Your task to perform on an android device: open sync settings in chrome Image 0: 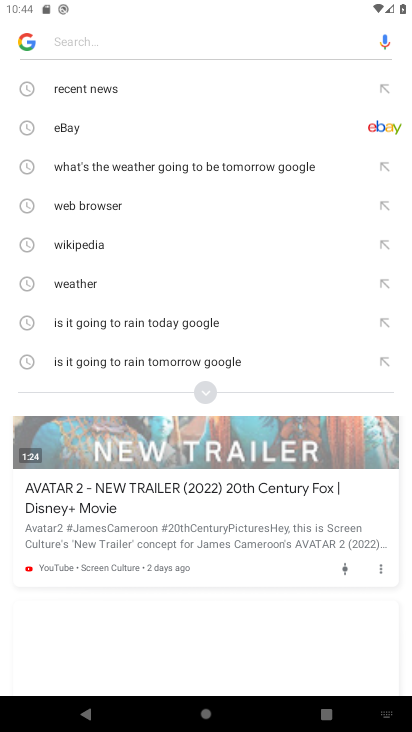
Step 0: press back button
Your task to perform on an android device: open sync settings in chrome Image 1: 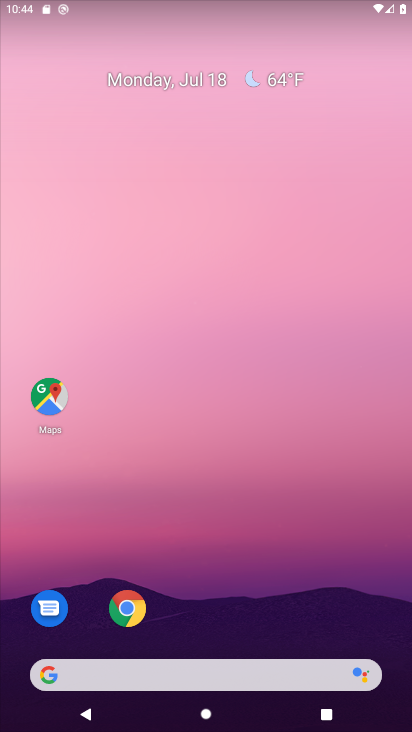
Step 1: click (129, 604)
Your task to perform on an android device: open sync settings in chrome Image 2: 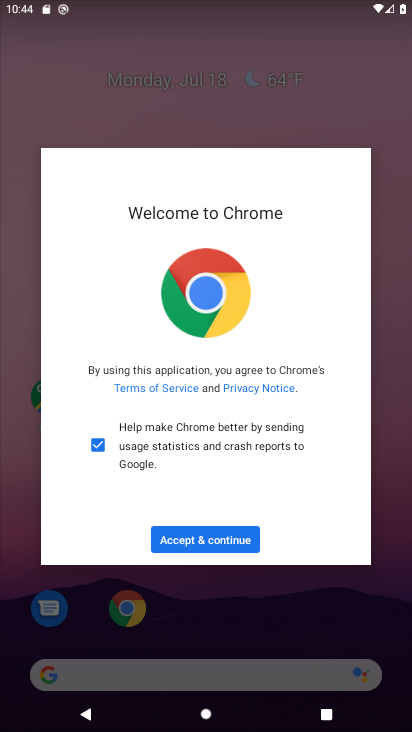
Step 2: click (204, 545)
Your task to perform on an android device: open sync settings in chrome Image 3: 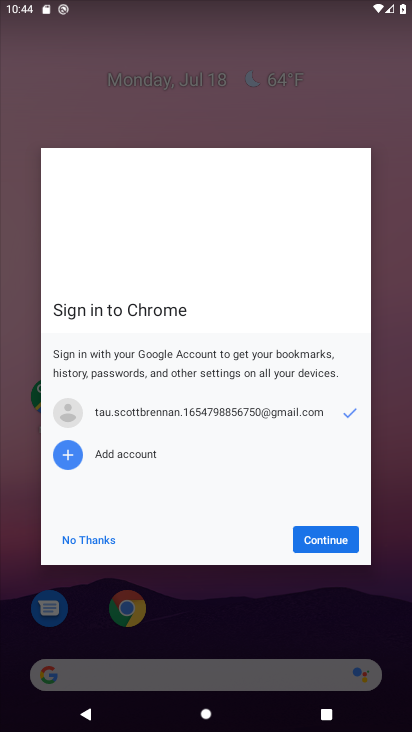
Step 3: click (85, 543)
Your task to perform on an android device: open sync settings in chrome Image 4: 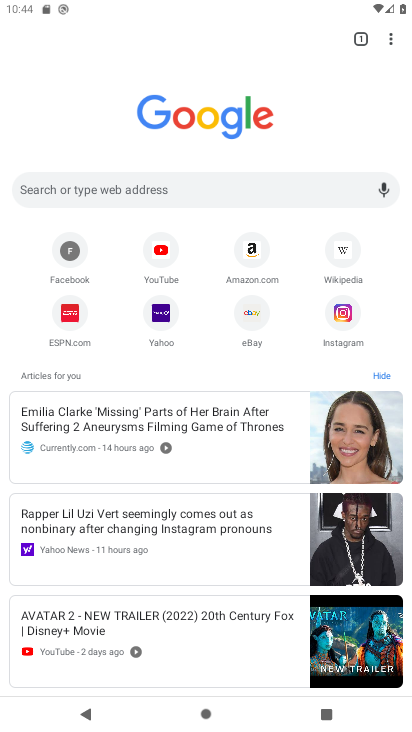
Step 4: click (392, 38)
Your task to perform on an android device: open sync settings in chrome Image 5: 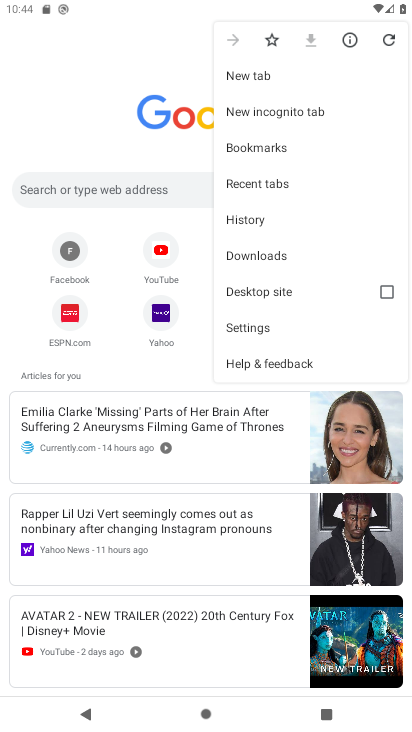
Step 5: click (235, 328)
Your task to perform on an android device: open sync settings in chrome Image 6: 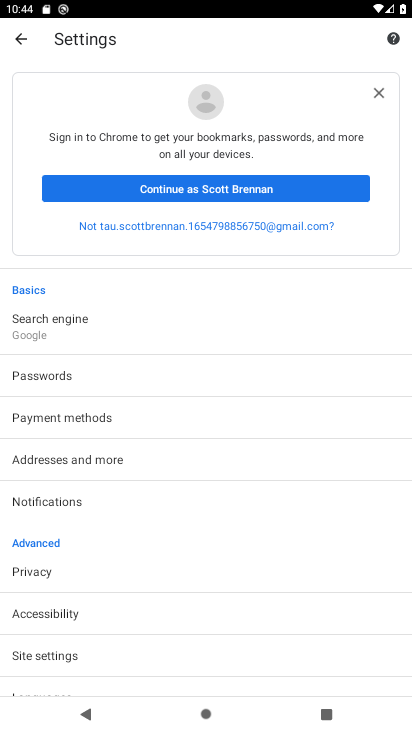
Step 6: drag from (5, 517) to (170, 231)
Your task to perform on an android device: open sync settings in chrome Image 7: 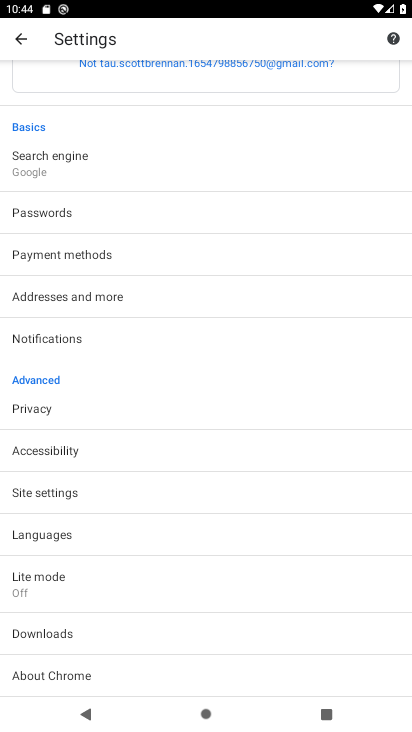
Step 7: click (69, 491)
Your task to perform on an android device: open sync settings in chrome Image 8: 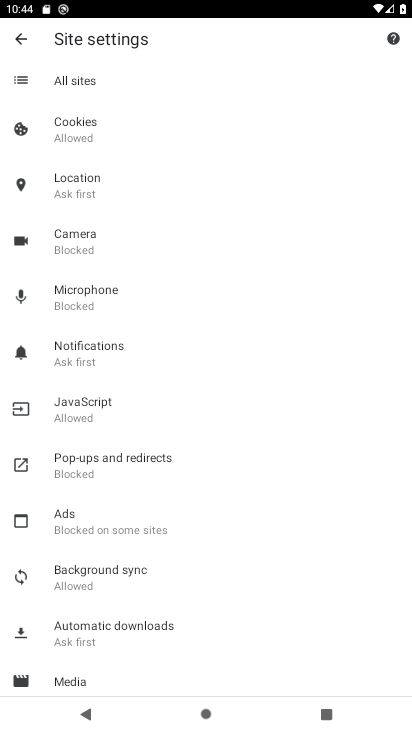
Step 8: press back button
Your task to perform on an android device: open sync settings in chrome Image 9: 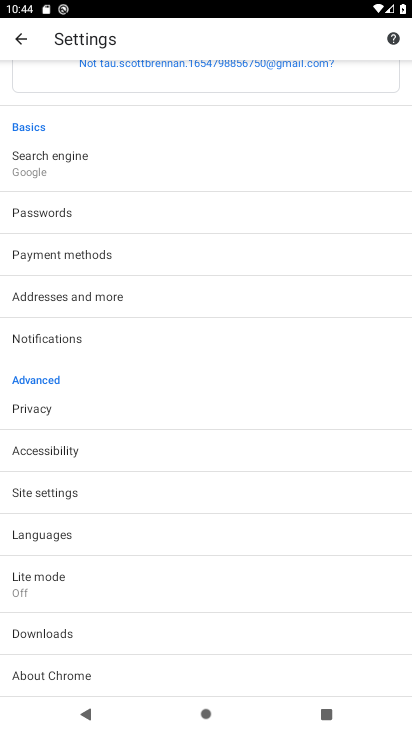
Step 9: click (49, 458)
Your task to perform on an android device: open sync settings in chrome Image 10: 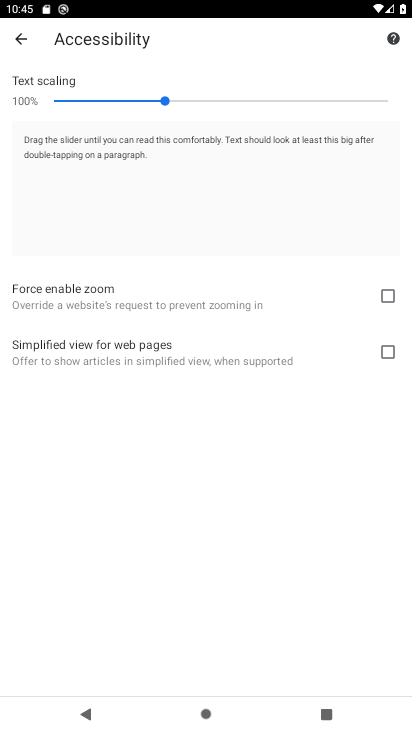
Step 10: press back button
Your task to perform on an android device: open sync settings in chrome Image 11: 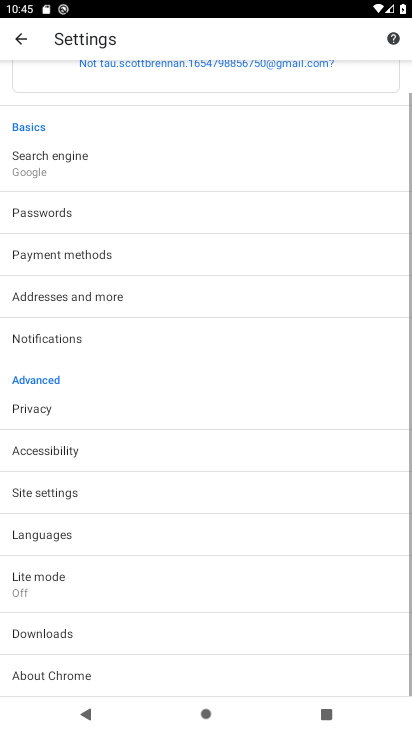
Step 11: drag from (12, 691) to (135, 376)
Your task to perform on an android device: open sync settings in chrome Image 12: 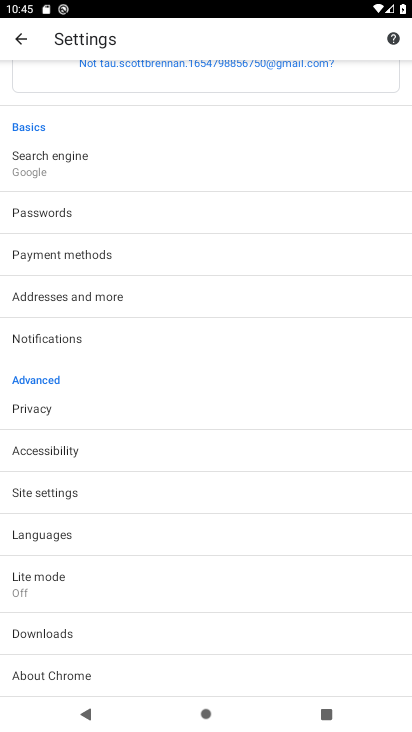
Step 12: click (34, 402)
Your task to perform on an android device: open sync settings in chrome Image 13: 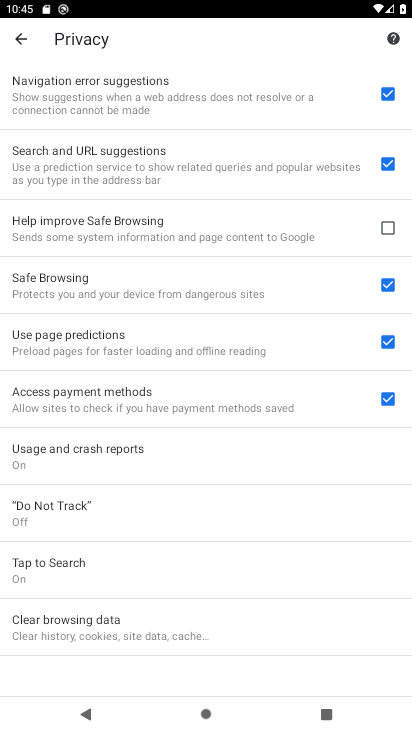
Step 13: task complete